Your task to perform on an android device: Open the calendar app, open the side menu, and click the "Day" option Image 0: 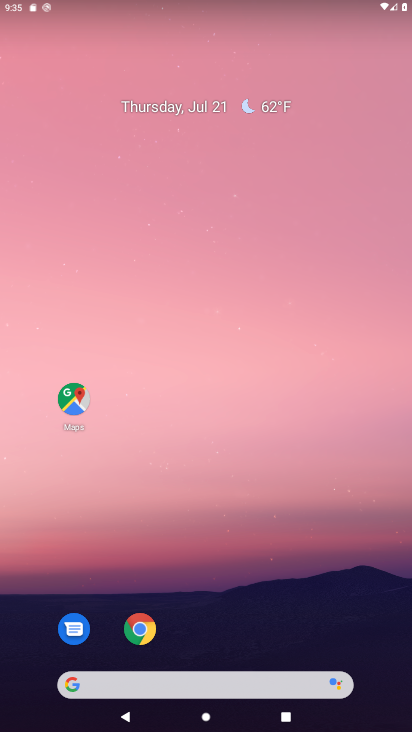
Step 0: drag from (260, 655) to (242, 60)
Your task to perform on an android device: Open the calendar app, open the side menu, and click the "Day" option Image 1: 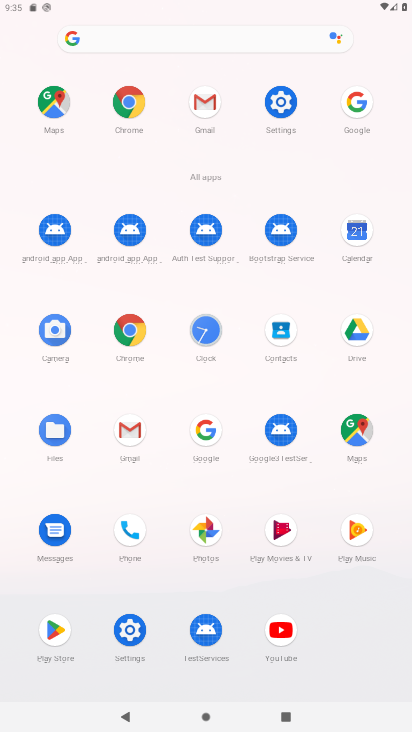
Step 1: click (354, 224)
Your task to perform on an android device: Open the calendar app, open the side menu, and click the "Day" option Image 2: 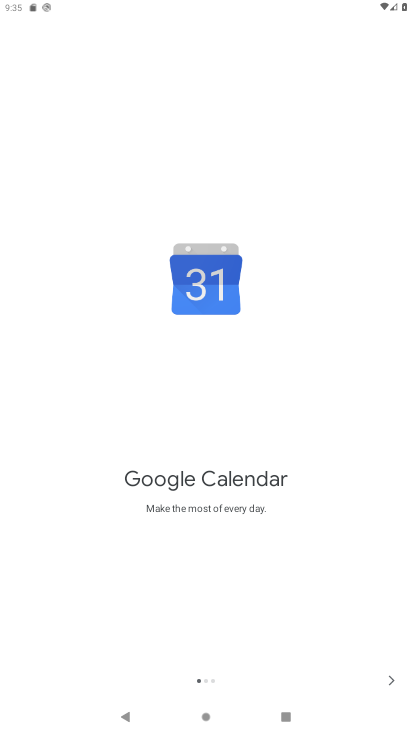
Step 2: click (380, 686)
Your task to perform on an android device: Open the calendar app, open the side menu, and click the "Day" option Image 3: 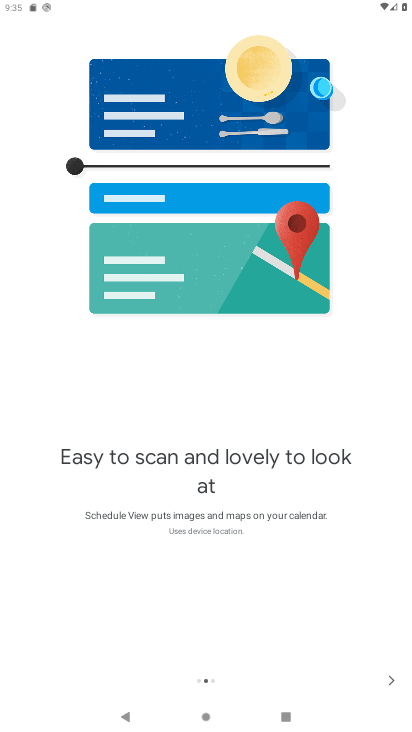
Step 3: click (391, 676)
Your task to perform on an android device: Open the calendar app, open the side menu, and click the "Day" option Image 4: 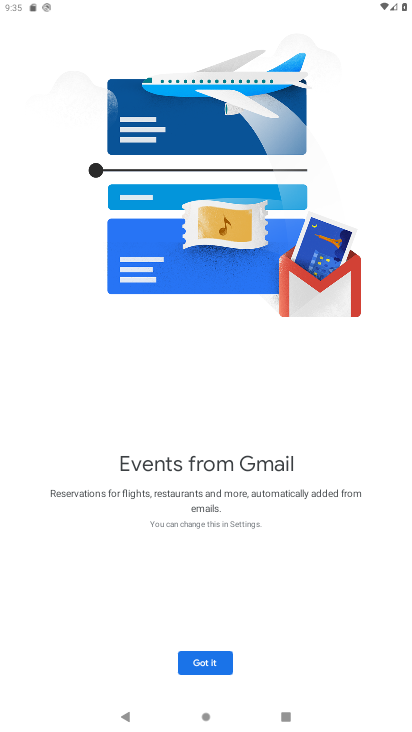
Step 4: click (202, 662)
Your task to perform on an android device: Open the calendar app, open the side menu, and click the "Day" option Image 5: 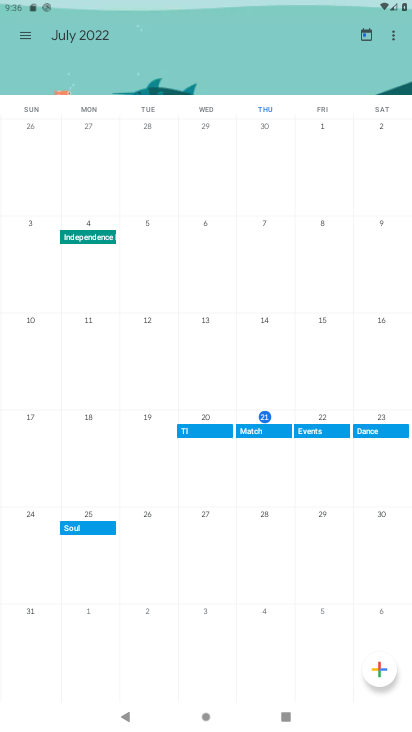
Step 5: click (23, 31)
Your task to perform on an android device: Open the calendar app, open the side menu, and click the "Day" option Image 6: 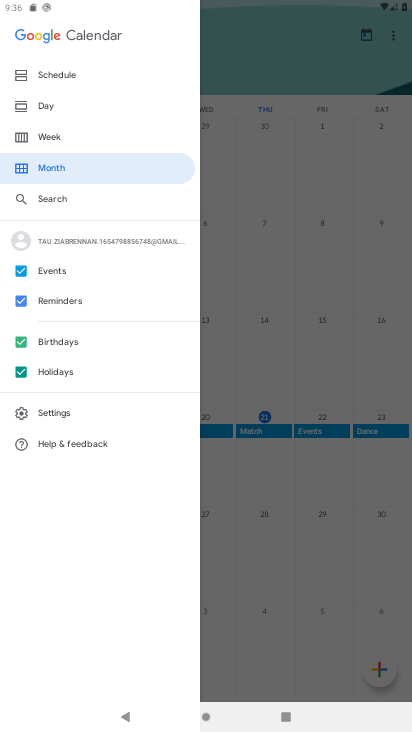
Step 6: click (59, 96)
Your task to perform on an android device: Open the calendar app, open the side menu, and click the "Day" option Image 7: 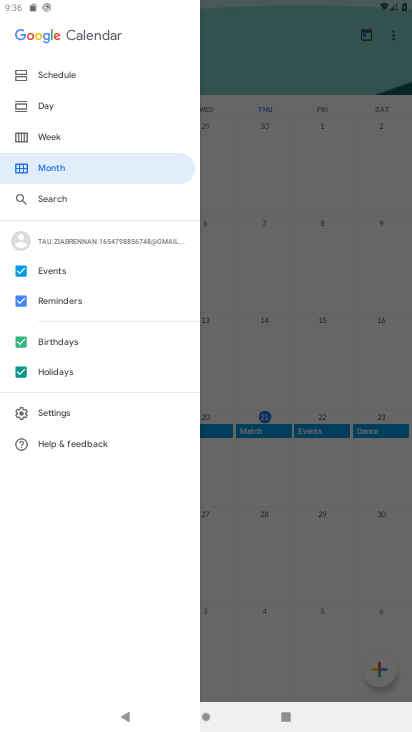
Step 7: click (42, 108)
Your task to perform on an android device: Open the calendar app, open the side menu, and click the "Day" option Image 8: 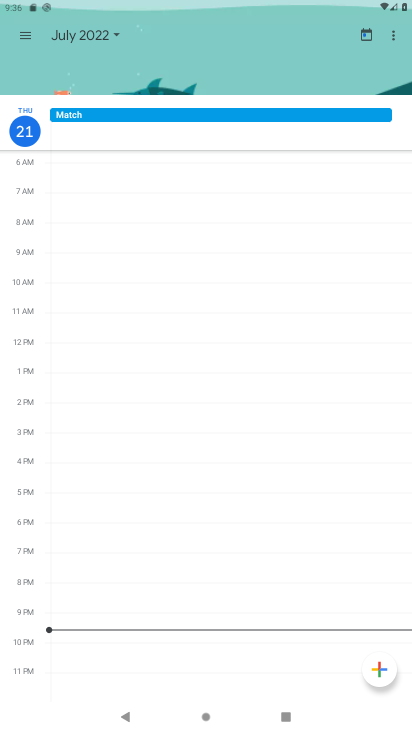
Step 8: task complete